Your task to perform on an android device: read, delete, or share a saved page in the chrome app Image 0: 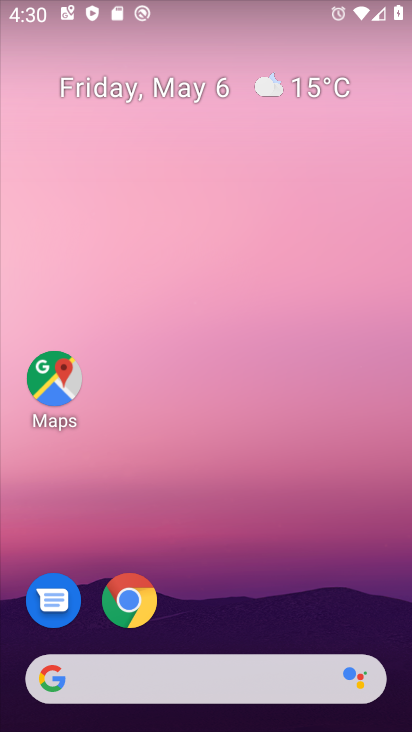
Step 0: click (141, 612)
Your task to perform on an android device: read, delete, or share a saved page in the chrome app Image 1: 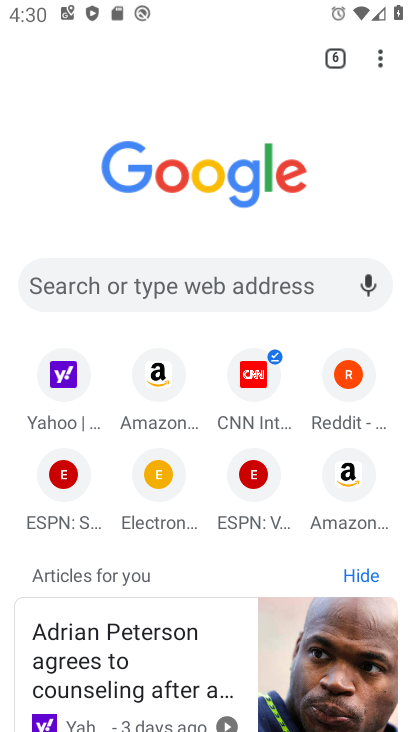
Step 1: click (377, 64)
Your task to perform on an android device: read, delete, or share a saved page in the chrome app Image 2: 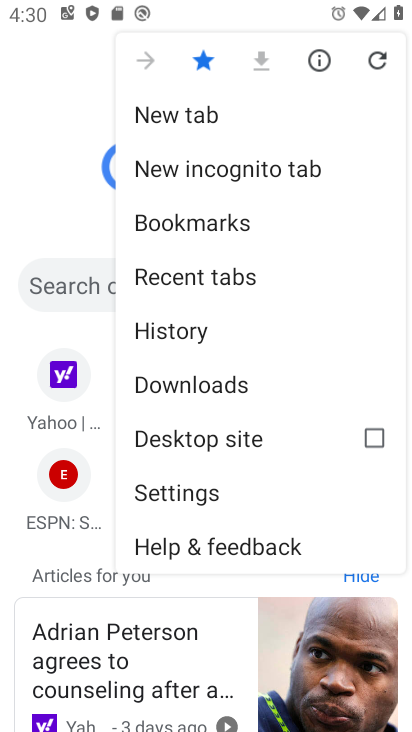
Step 2: click (194, 390)
Your task to perform on an android device: read, delete, or share a saved page in the chrome app Image 3: 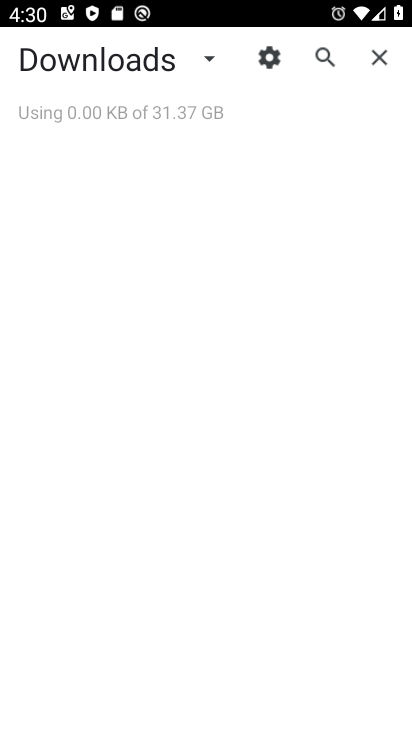
Step 3: task complete